Your task to perform on an android device: check out phone information Image 0: 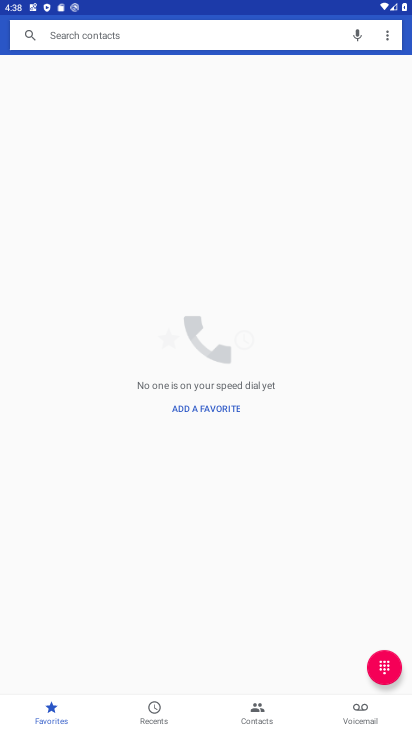
Step 0: press home button
Your task to perform on an android device: check out phone information Image 1: 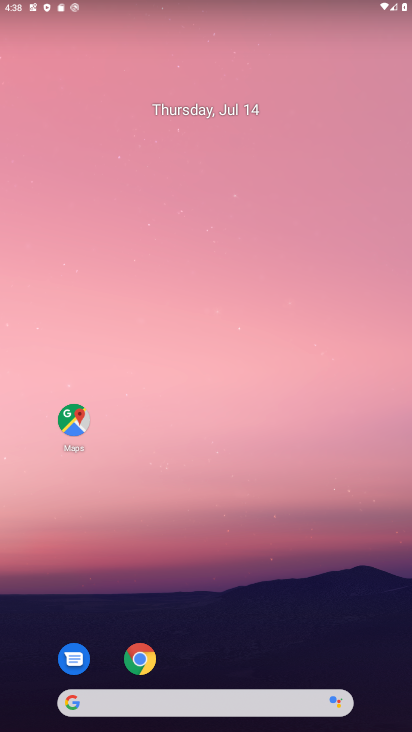
Step 1: drag from (227, 660) to (245, 335)
Your task to perform on an android device: check out phone information Image 2: 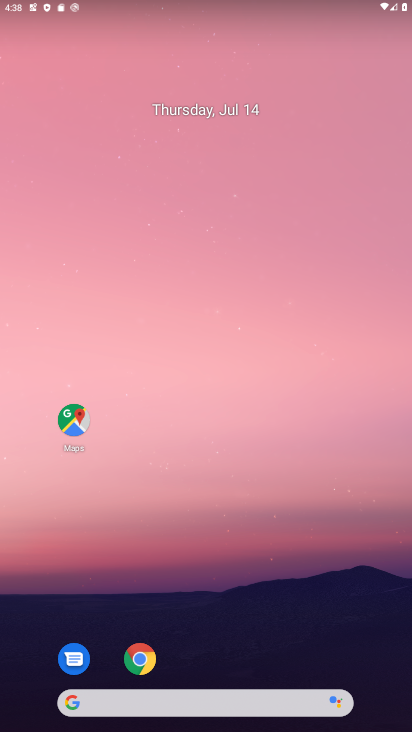
Step 2: drag from (238, 665) to (245, 122)
Your task to perform on an android device: check out phone information Image 3: 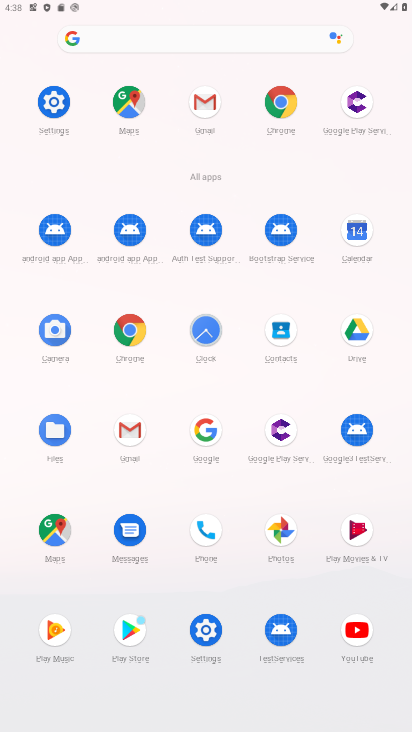
Step 3: click (52, 99)
Your task to perform on an android device: check out phone information Image 4: 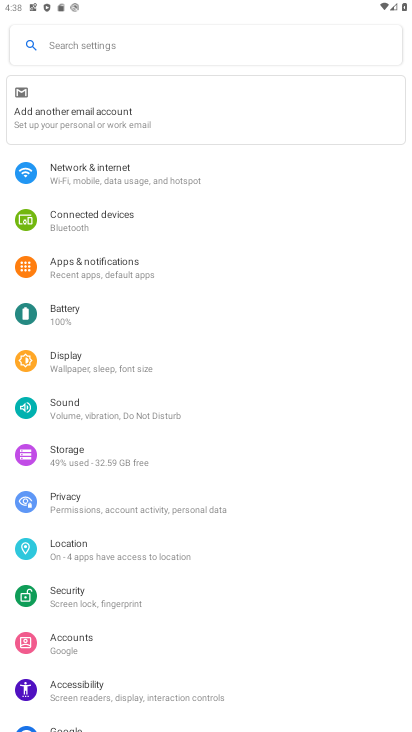
Step 4: drag from (160, 679) to (180, 39)
Your task to perform on an android device: check out phone information Image 5: 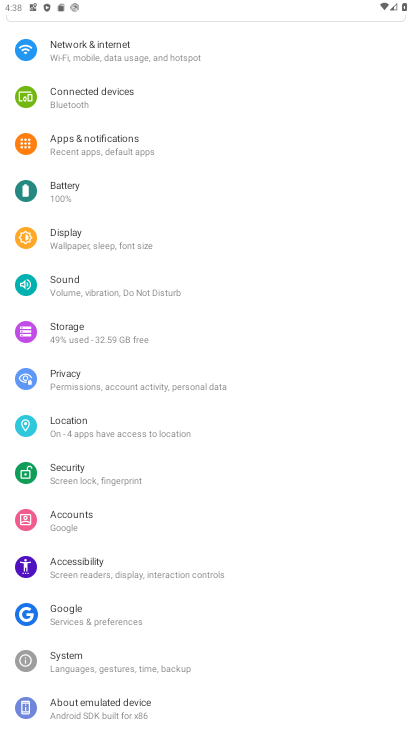
Step 5: click (128, 697)
Your task to perform on an android device: check out phone information Image 6: 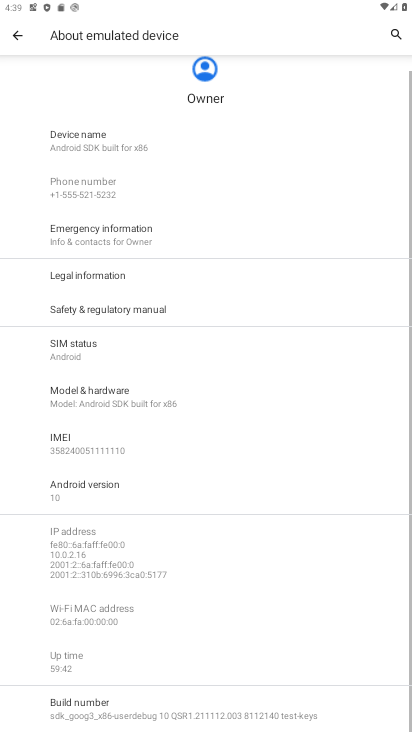
Step 6: task complete